Your task to perform on an android device: Open location settings Image 0: 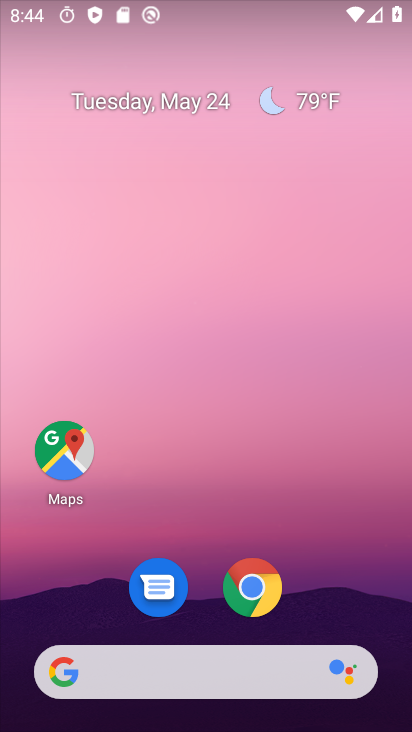
Step 0: drag from (350, 564) to (257, 56)
Your task to perform on an android device: Open location settings Image 1: 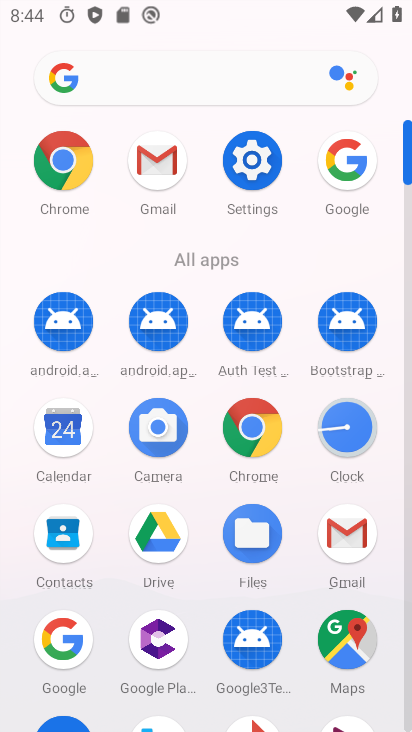
Step 1: click (253, 158)
Your task to perform on an android device: Open location settings Image 2: 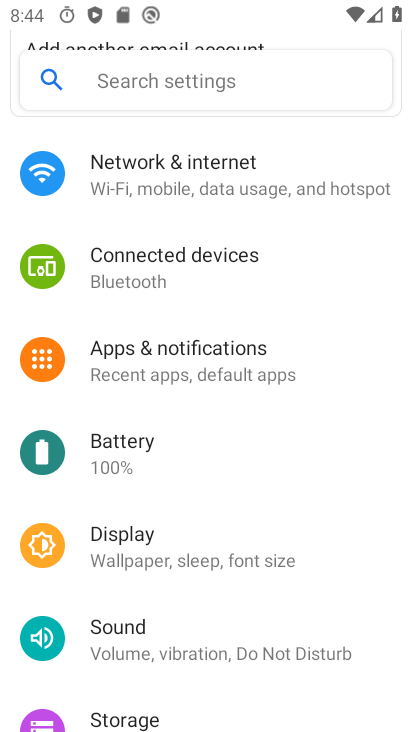
Step 2: drag from (218, 431) to (255, 345)
Your task to perform on an android device: Open location settings Image 3: 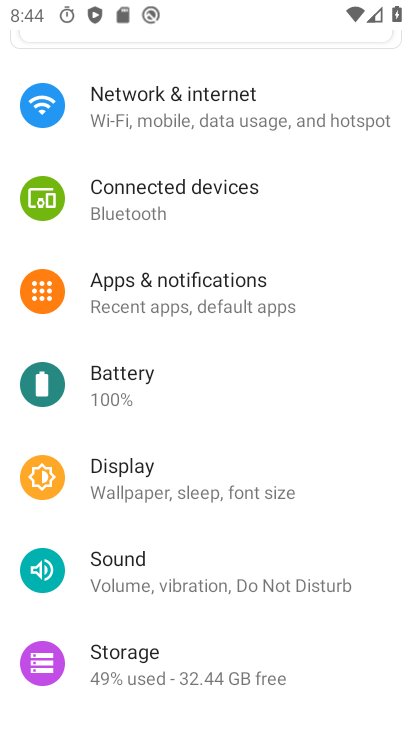
Step 3: drag from (195, 431) to (255, 342)
Your task to perform on an android device: Open location settings Image 4: 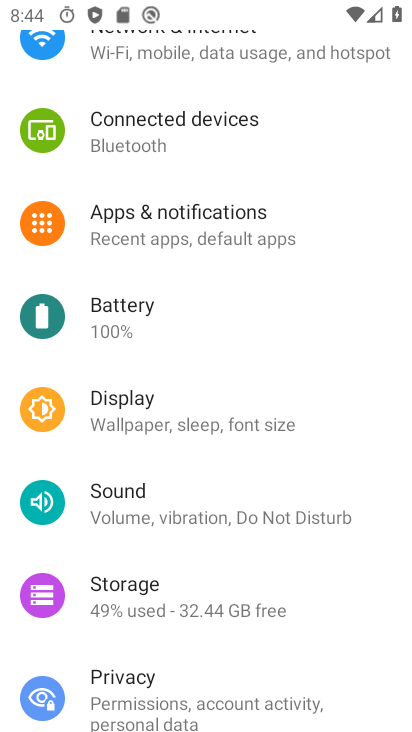
Step 4: drag from (182, 464) to (221, 375)
Your task to perform on an android device: Open location settings Image 5: 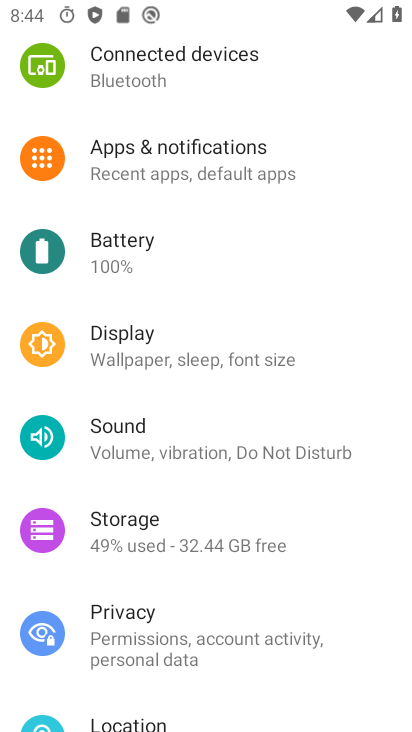
Step 5: drag from (177, 492) to (240, 388)
Your task to perform on an android device: Open location settings Image 6: 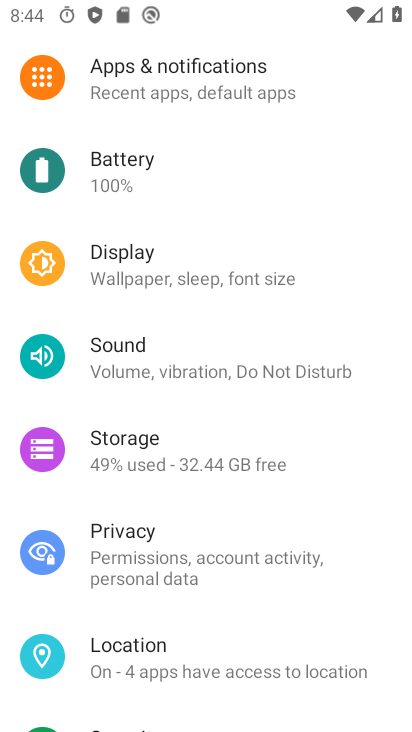
Step 6: drag from (196, 508) to (277, 413)
Your task to perform on an android device: Open location settings Image 7: 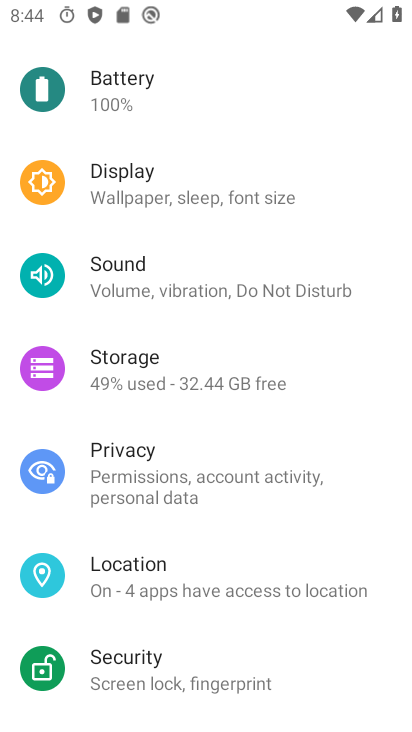
Step 7: click (193, 583)
Your task to perform on an android device: Open location settings Image 8: 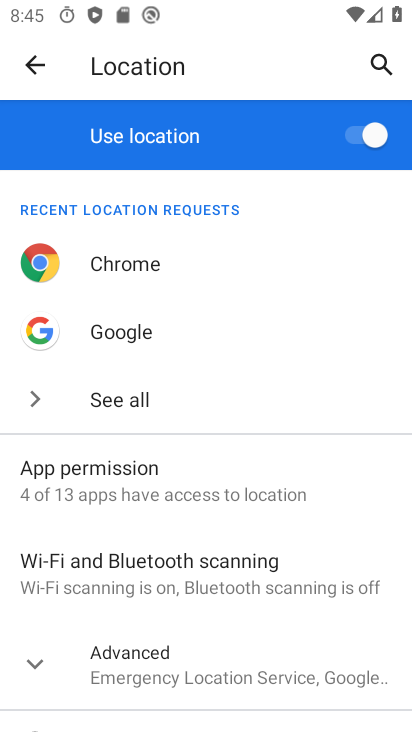
Step 8: task complete